Your task to perform on an android device: Open maps Image 0: 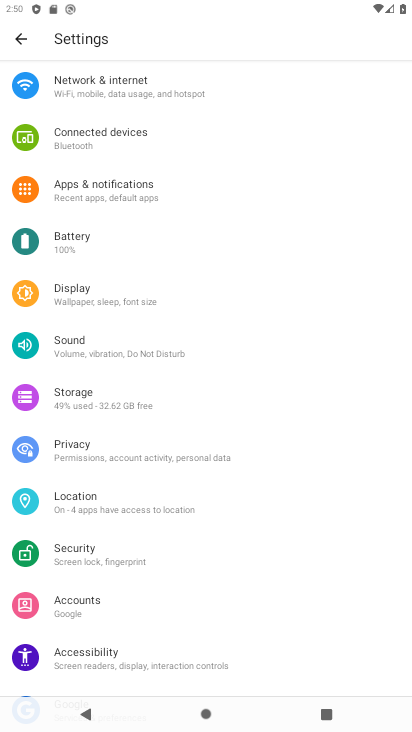
Step 0: press home button
Your task to perform on an android device: Open maps Image 1: 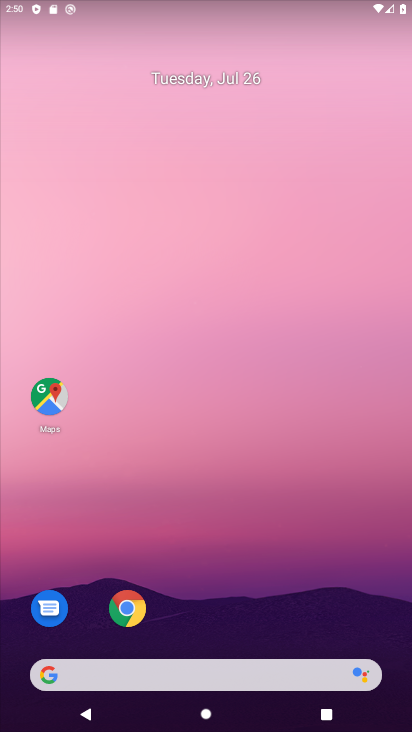
Step 1: drag from (206, 636) to (222, 0)
Your task to perform on an android device: Open maps Image 2: 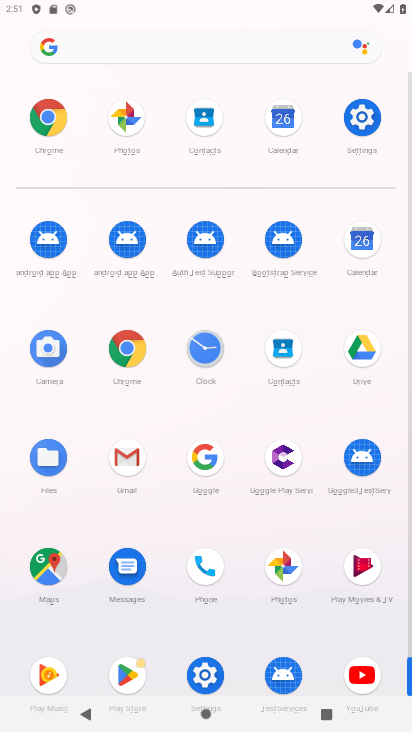
Step 2: click (43, 565)
Your task to perform on an android device: Open maps Image 3: 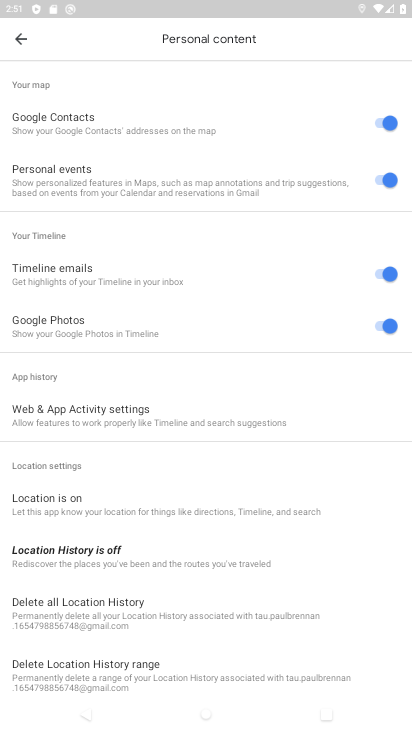
Step 3: click (25, 39)
Your task to perform on an android device: Open maps Image 4: 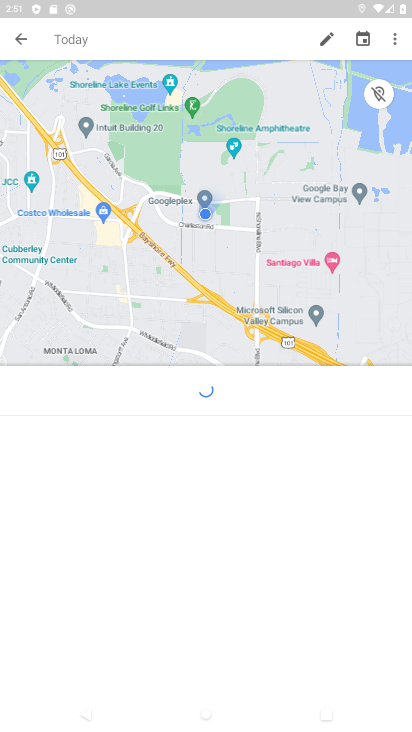
Step 4: click (13, 37)
Your task to perform on an android device: Open maps Image 5: 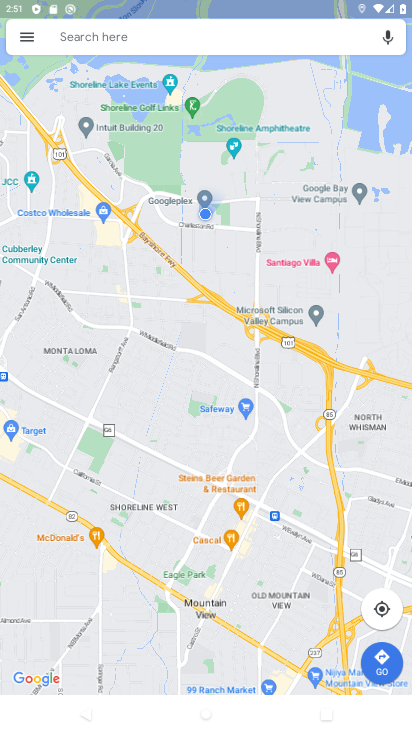
Step 5: task complete